Your task to perform on an android device: turn on the 24-hour format for clock Image 0: 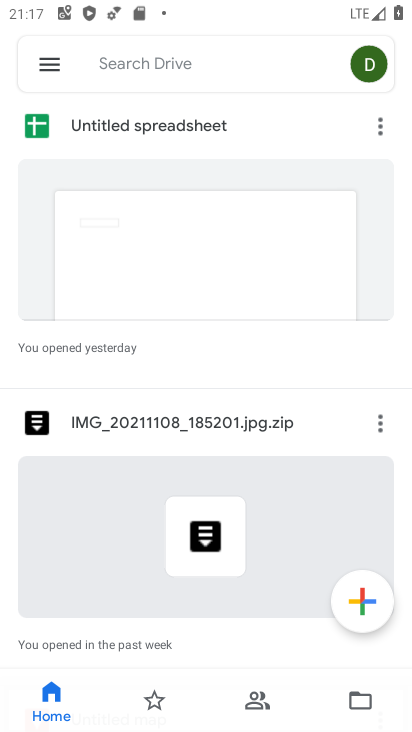
Step 0: press back button
Your task to perform on an android device: turn on the 24-hour format for clock Image 1: 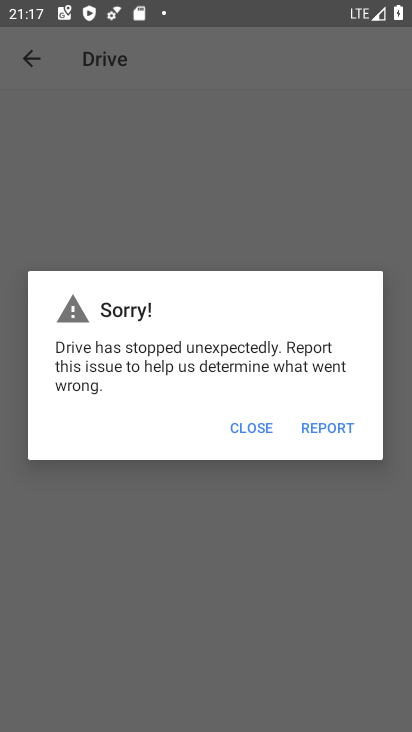
Step 1: press home button
Your task to perform on an android device: turn on the 24-hour format for clock Image 2: 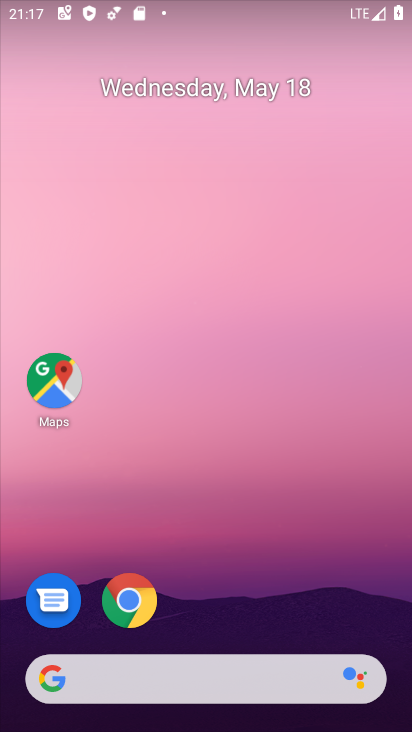
Step 2: drag from (194, 566) to (271, 67)
Your task to perform on an android device: turn on the 24-hour format for clock Image 3: 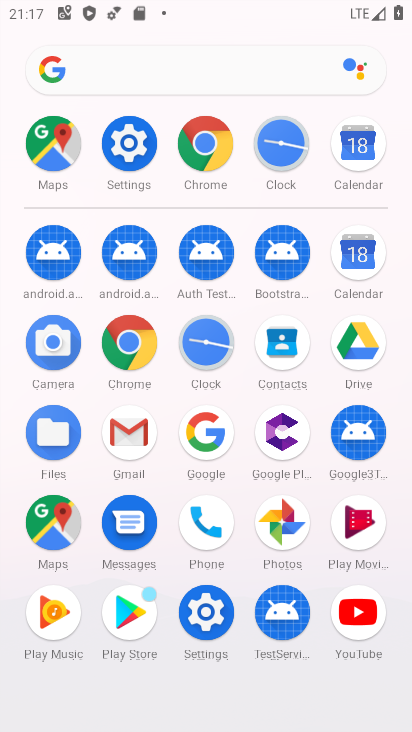
Step 3: click (217, 345)
Your task to perform on an android device: turn on the 24-hour format for clock Image 4: 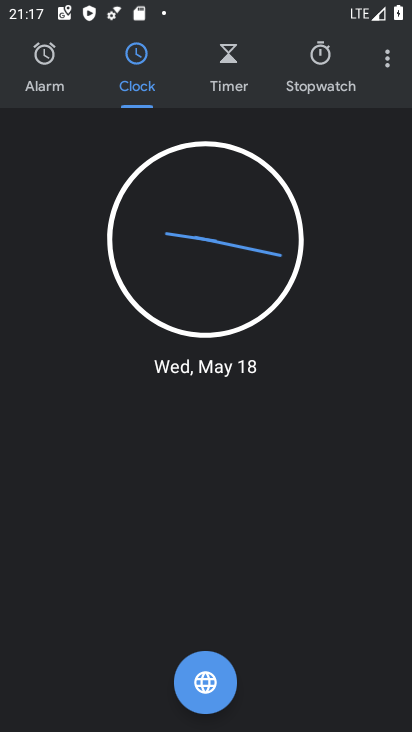
Step 4: click (386, 63)
Your task to perform on an android device: turn on the 24-hour format for clock Image 5: 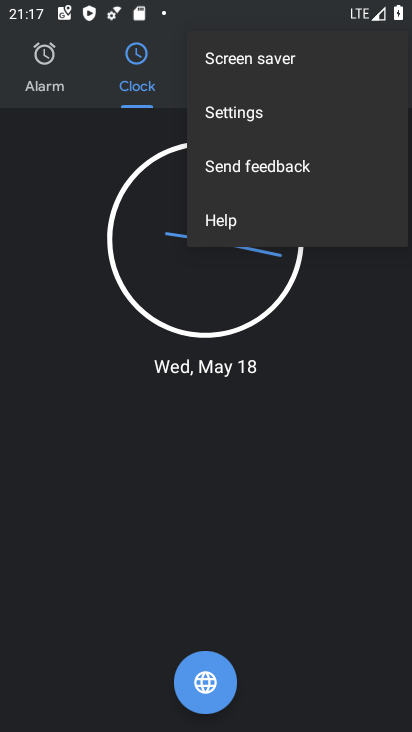
Step 5: click (312, 96)
Your task to perform on an android device: turn on the 24-hour format for clock Image 6: 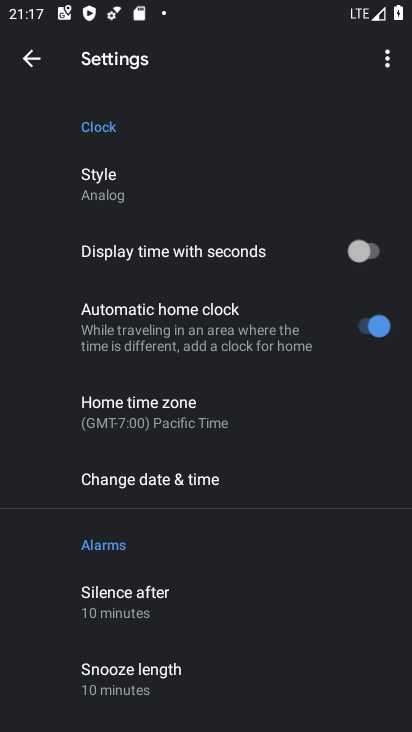
Step 6: click (180, 481)
Your task to perform on an android device: turn on the 24-hour format for clock Image 7: 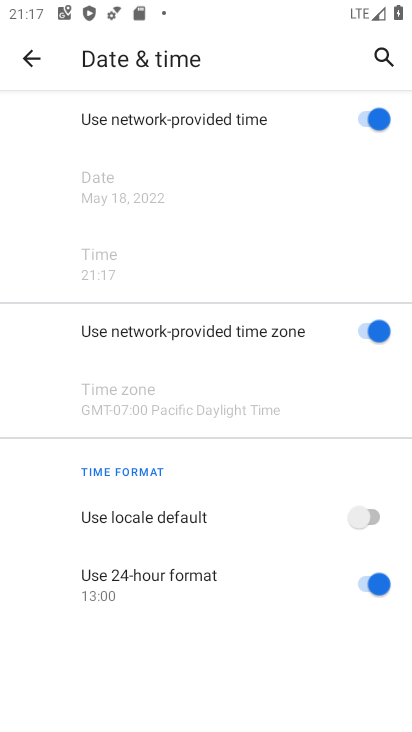
Step 7: task complete